Your task to perform on an android device: Open Yahoo.com Image 0: 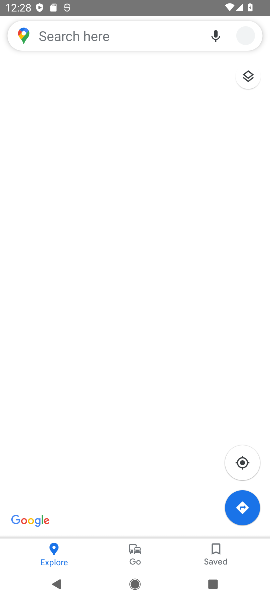
Step 0: press home button
Your task to perform on an android device: Open Yahoo.com Image 1: 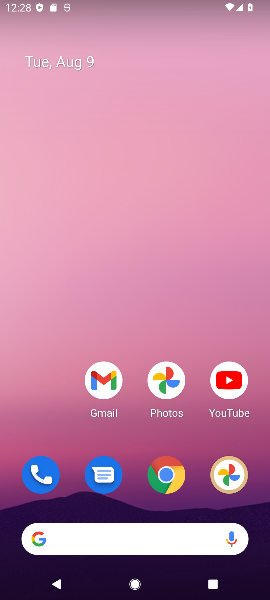
Step 1: click (163, 464)
Your task to perform on an android device: Open Yahoo.com Image 2: 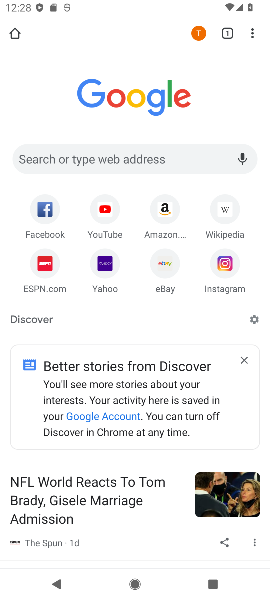
Step 2: click (103, 267)
Your task to perform on an android device: Open Yahoo.com Image 3: 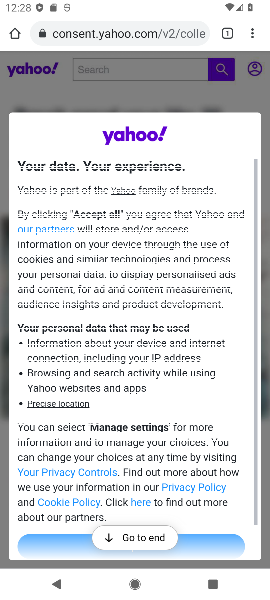
Step 3: task complete